Your task to perform on an android device: open a bookmark in the chrome app Image 0: 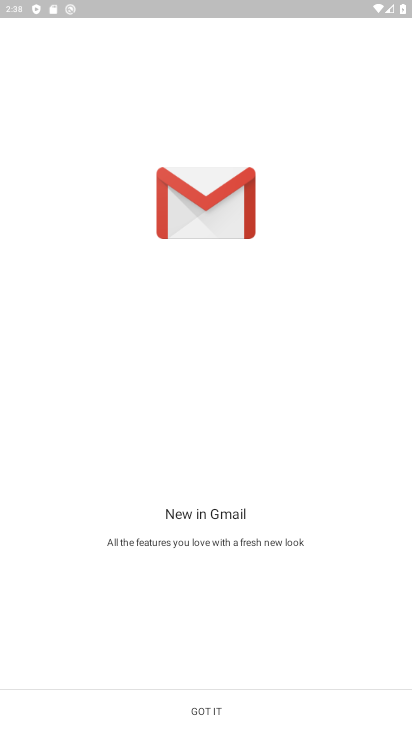
Step 0: press back button
Your task to perform on an android device: open a bookmark in the chrome app Image 1: 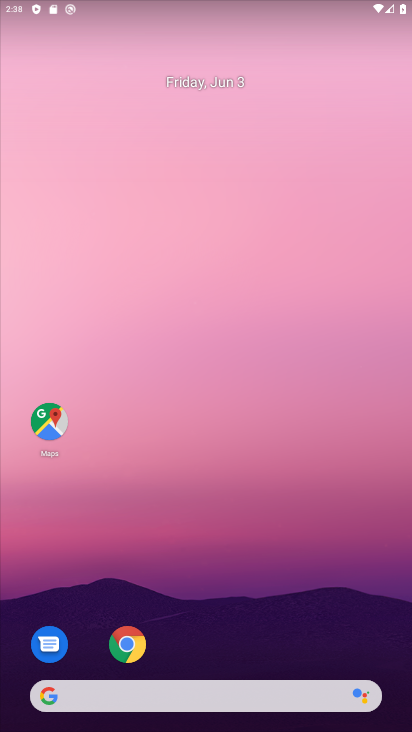
Step 1: click (133, 639)
Your task to perform on an android device: open a bookmark in the chrome app Image 2: 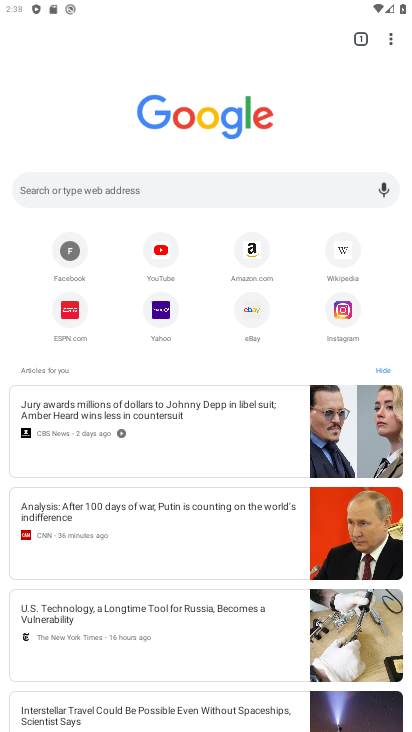
Step 2: click (382, 33)
Your task to perform on an android device: open a bookmark in the chrome app Image 3: 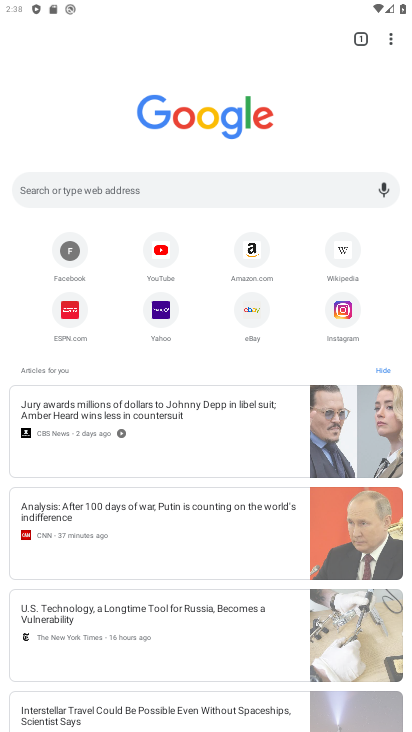
Step 3: task complete